Your task to perform on an android device: change the clock display to show seconds Image 0: 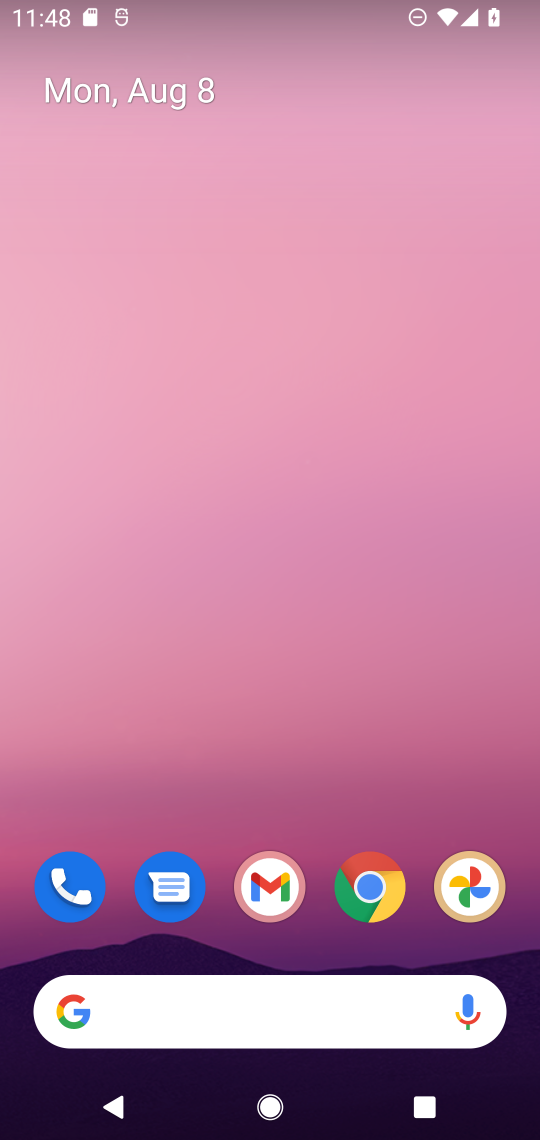
Step 0: drag from (291, 791) to (234, 259)
Your task to perform on an android device: change the clock display to show seconds Image 1: 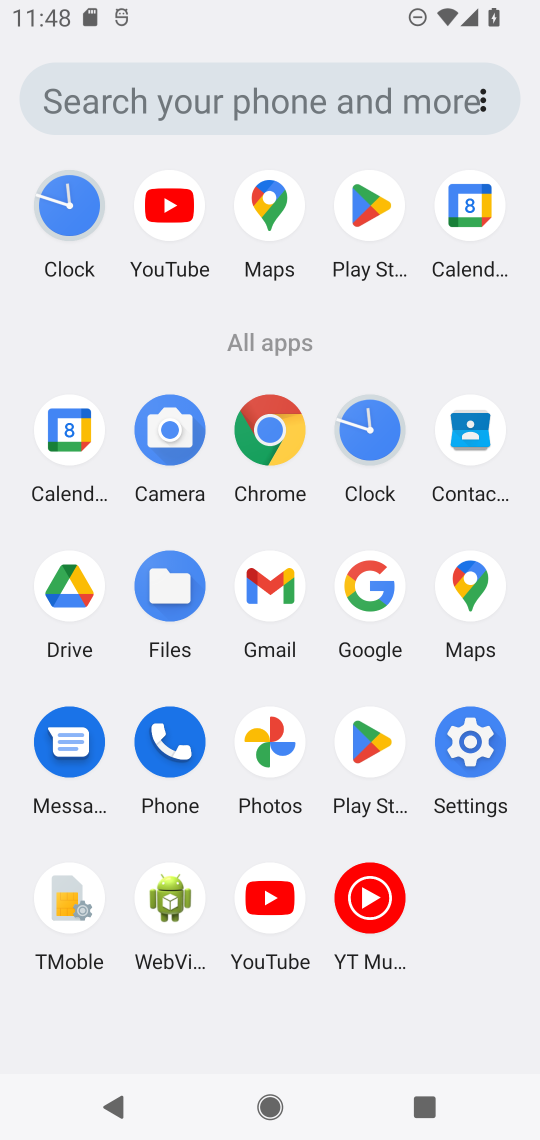
Step 1: click (70, 203)
Your task to perform on an android device: change the clock display to show seconds Image 2: 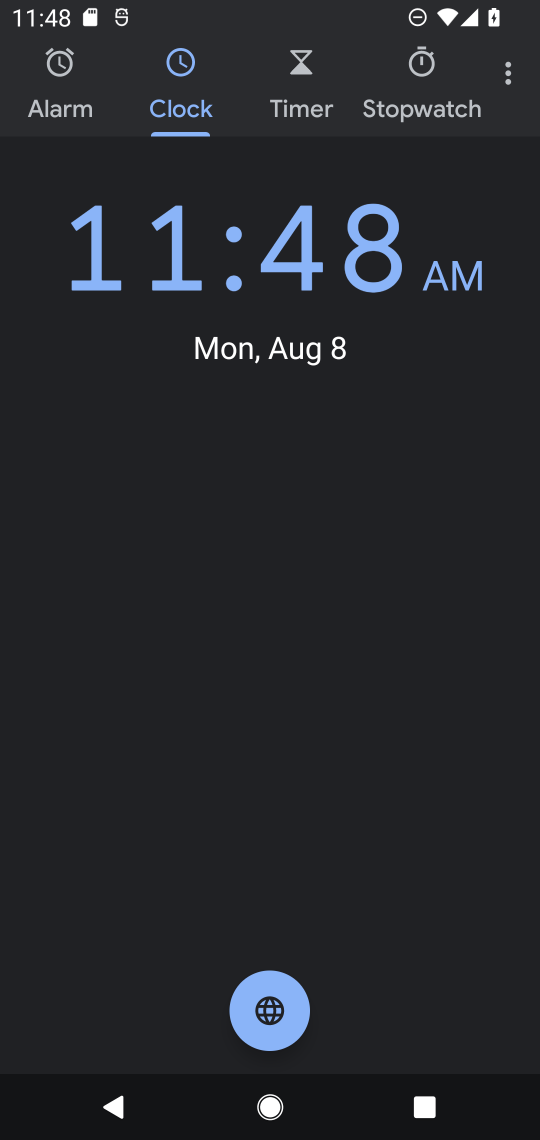
Step 2: click (512, 95)
Your task to perform on an android device: change the clock display to show seconds Image 3: 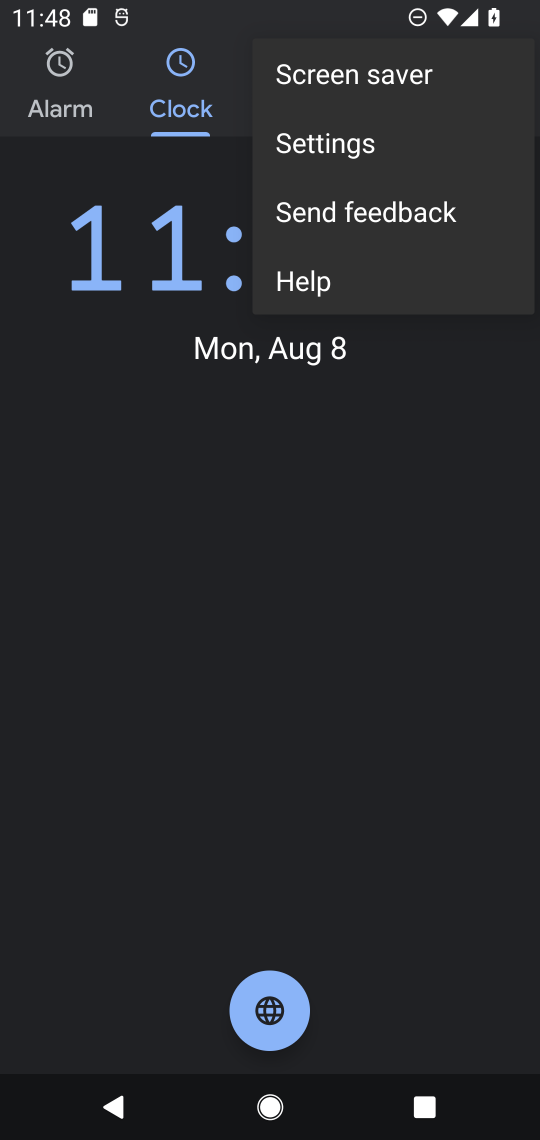
Step 3: click (323, 148)
Your task to perform on an android device: change the clock display to show seconds Image 4: 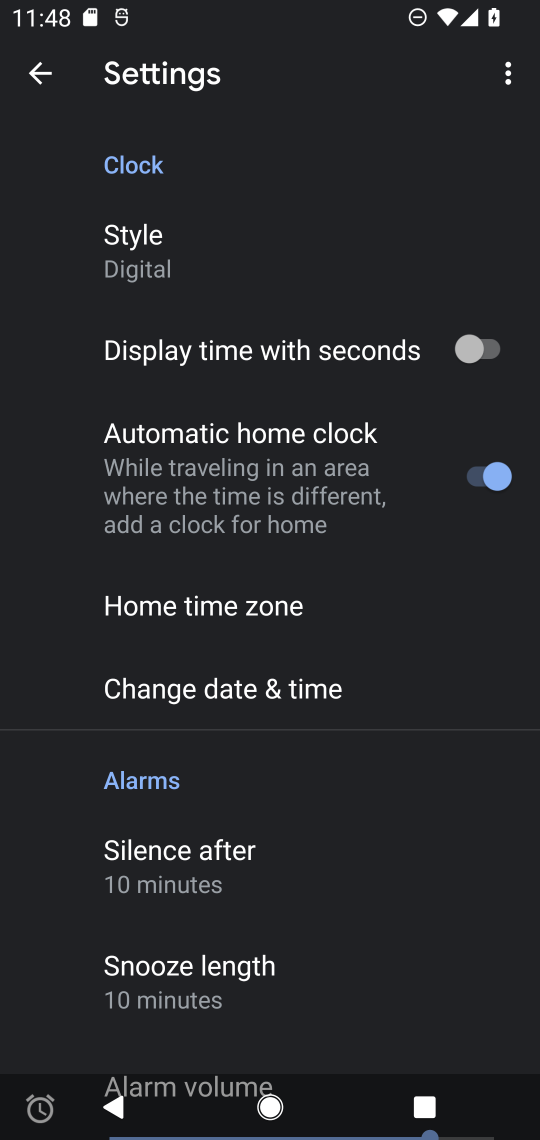
Step 4: click (477, 342)
Your task to perform on an android device: change the clock display to show seconds Image 5: 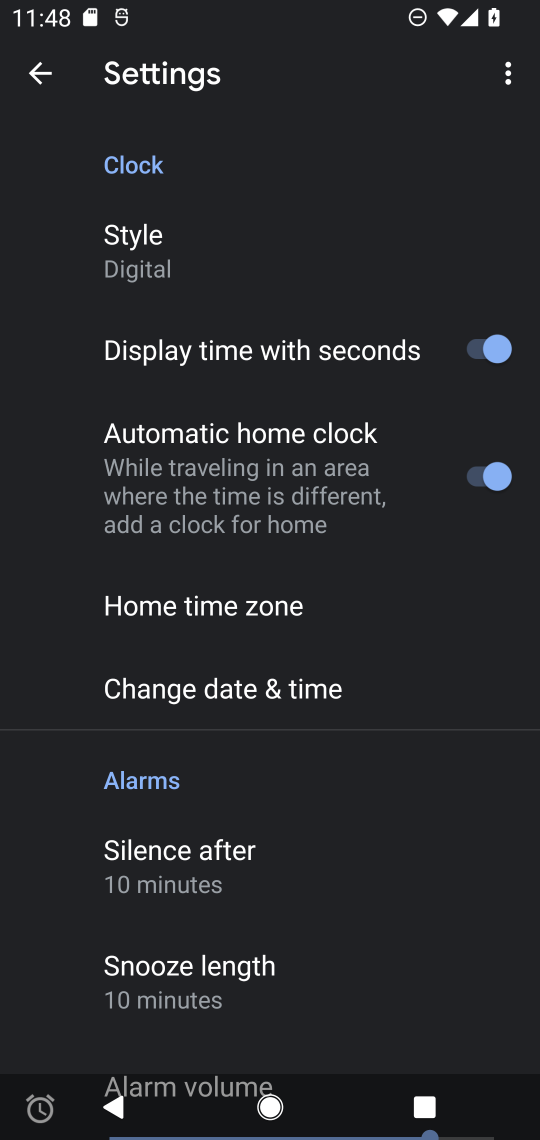
Step 5: task complete